Your task to perform on an android device: Search for seafood restaurants on Google Maps Image 0: 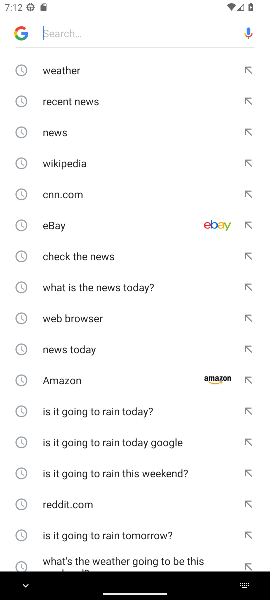
Step 0: press back button
Your task to perform on an android device: Search for seafood restaurants on Google Maps Image 1: 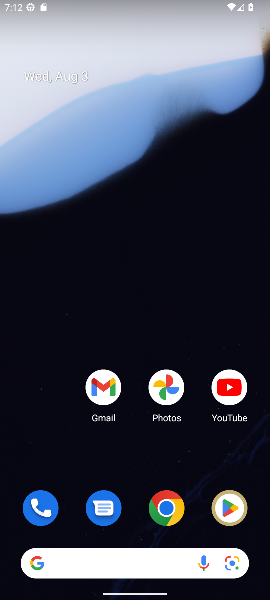
Step 1: drag from (200, 473) to (170, 93)
Your task to perform on an android device: Search for seafood restaurants on Google Maps Image 2: 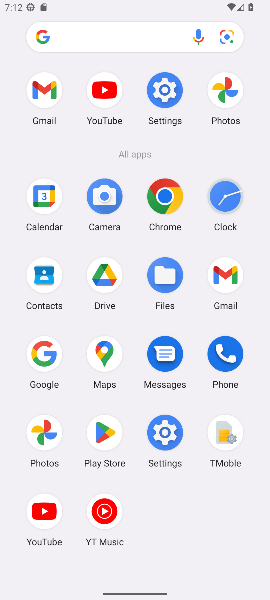
Step 2: click (106, 346)
Your task to perform on an android device: Search for seafood restaurants on Google Maps Image 3: 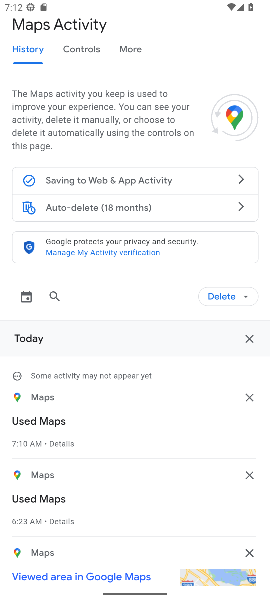
Step 3: press home button
Your task to perform on an android device: Search for seafood restaurants on Google Maps Image 4: 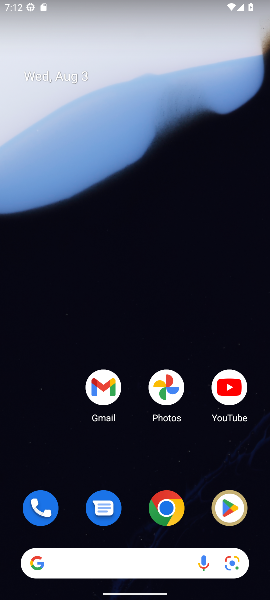
Step 4: drag from (142, 461) to (135, 81)
Your task to perform on an android device: Search for seafood restaurants on Google Maps Image 5: 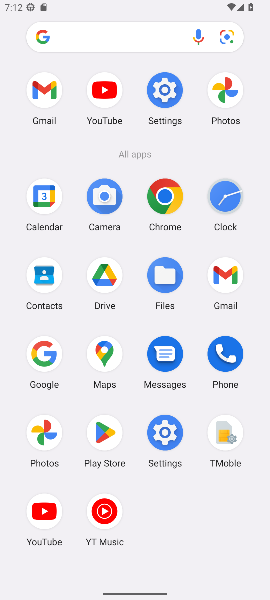
Step 5: click (107, 364)
Your task to perform on an android device: Search for seafood restaurants on Google Maps Image 6: 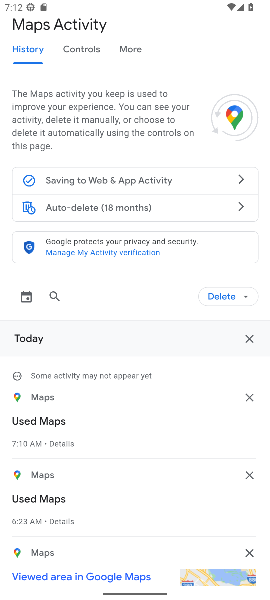
Step 6: press back button
Your task to perform on an android device: Search for seafood restaurants on Google Maps Image 7: 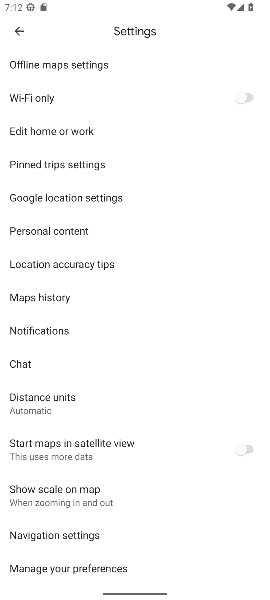
Step 7: press back button
Your task to perform on an android device: Search for seafood restaurants on Google Maps Image 8: 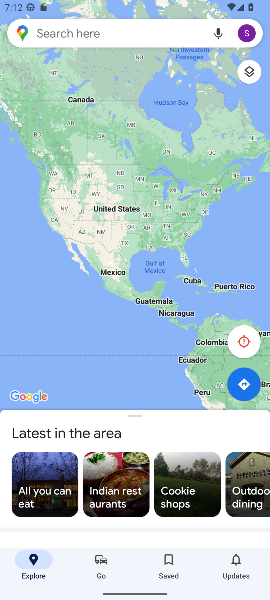
Step 8: click (97, 28)
Your task to perform on an android device: Search for seafood restaurants on Google Maps Image 9: 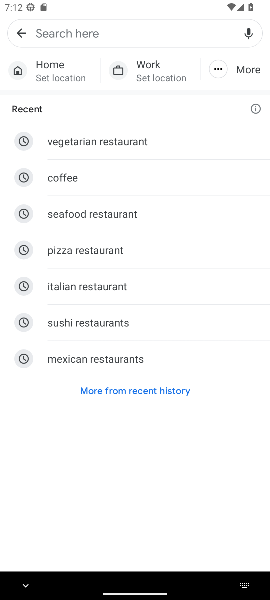
Step 9: click (167, 218)
Your task to perform on an android device: Search for seafood restaurants on Google Maps Image 10: 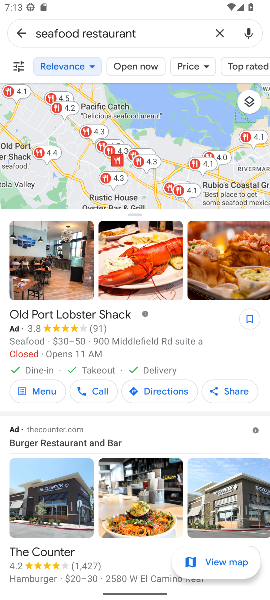
Step 10: task complete